Your task to perform on an android device: toggle location history Image 0: 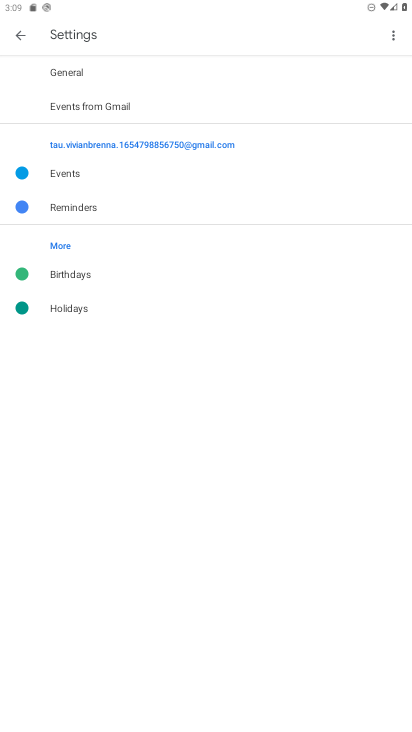
Step 0: press home button
Your task to perform on an android device: toggle location history Image 1: 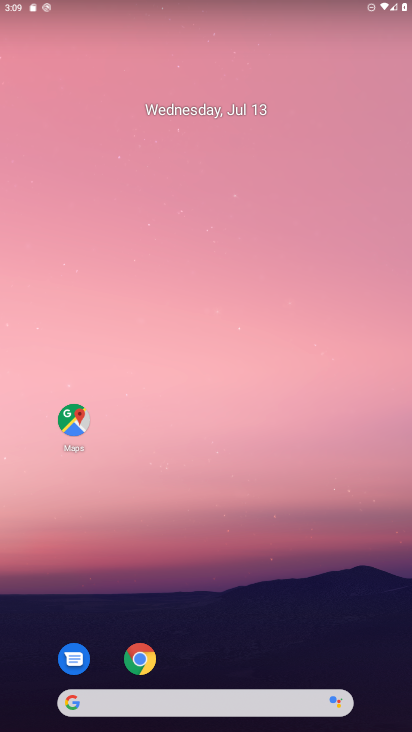
Step 1: click (71, 415)
Your task to perform on an android device: toggle location history Image 2: 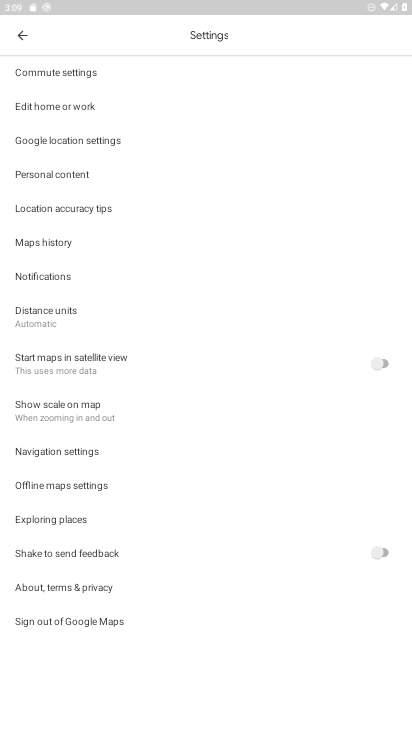
Step 2: click (50, 171)
Your task to perform on an android device: toggle location history Image 3: 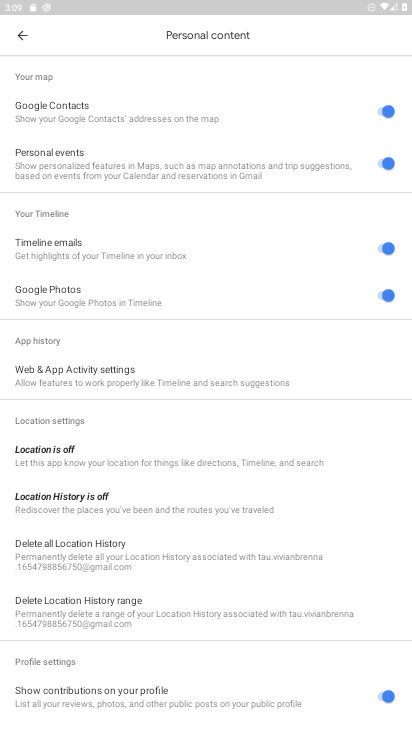
Step 3: click (55, 504)
Your task to perform on an android device: toggle location history Image 4: 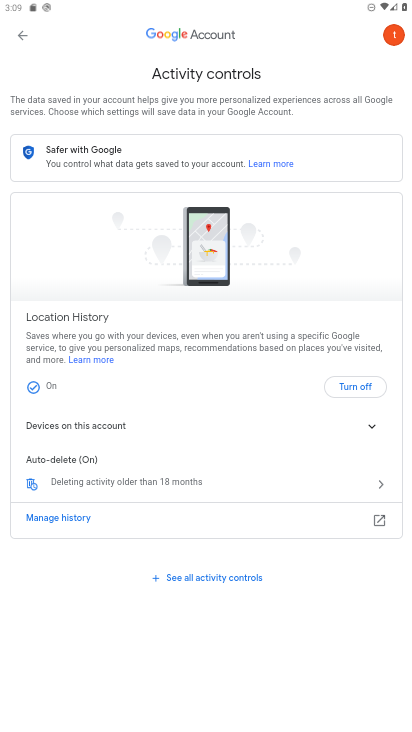
Step 4: click (354, 385)
Your task to perform on an android device: toggle location history Image 5: 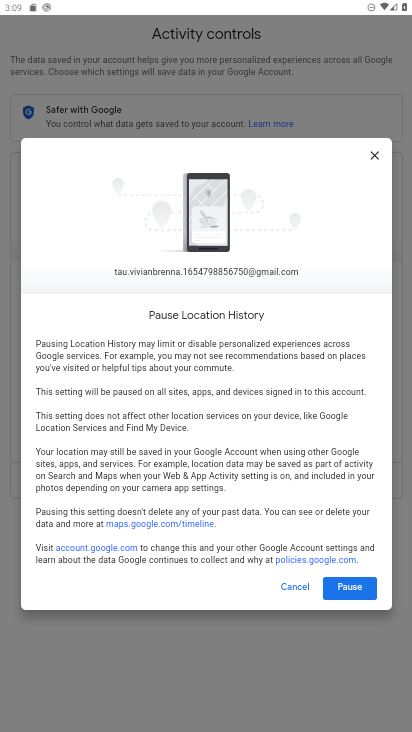
Step 5: click (346, 590)
Your task to perform on an android device: toggle location history Image 6: 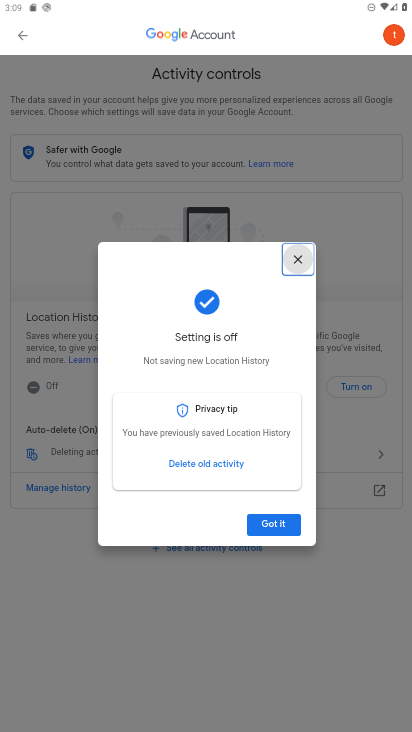
Step 6: click (267, 522)
Your task to perform on an android device: toggle location history Image 7: 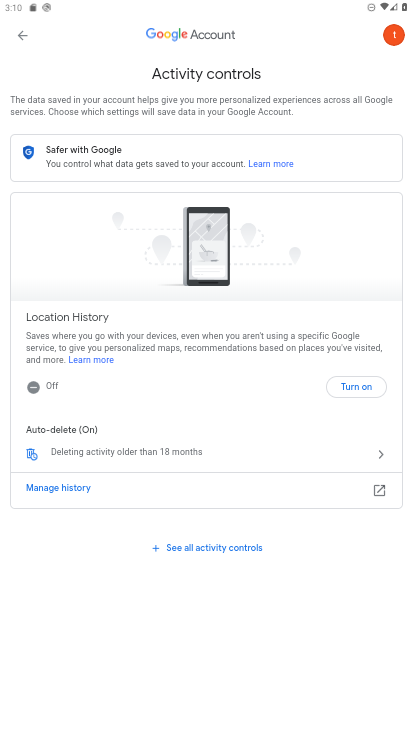
Step 7: task complete